Your task to perform on an android device: Show me recent news Image 0: 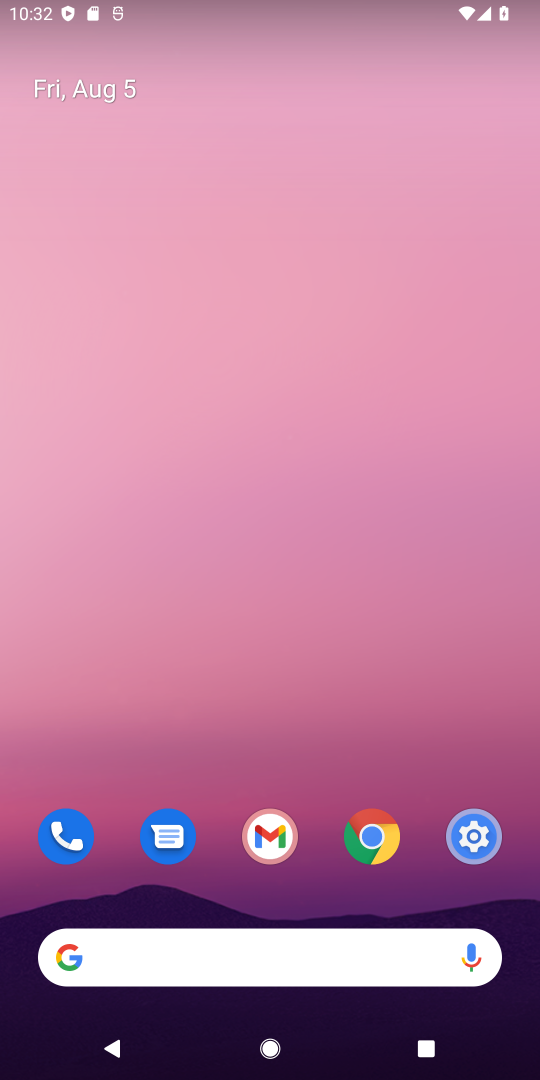
Step 0: drag from (309, 497) to (271, 12)
Your task to perform on an android device: Show me recent news Image 1: 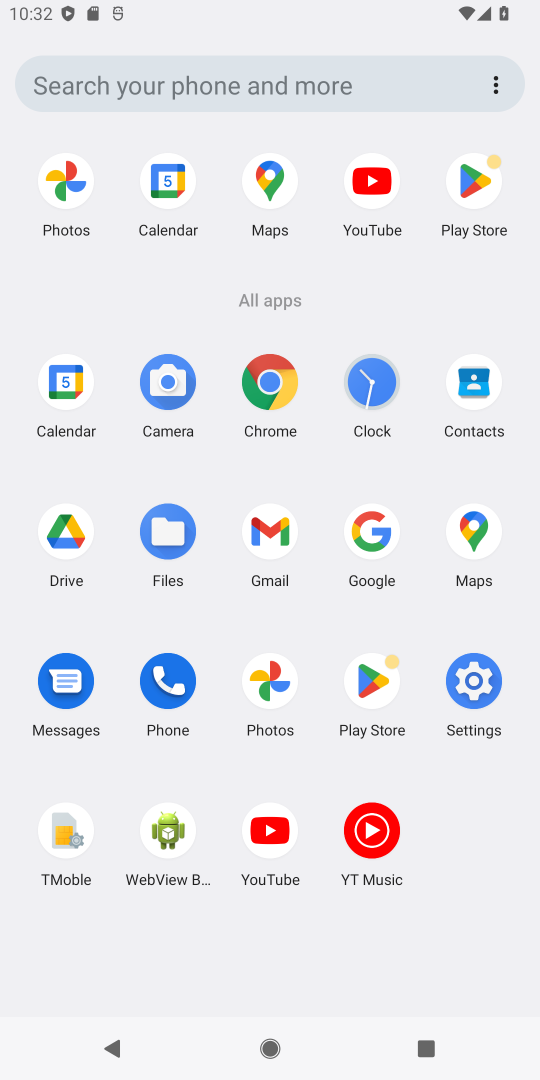
Step 1: click (271, 383)
Your task to perform on an android device: Show me recent news Image 2: 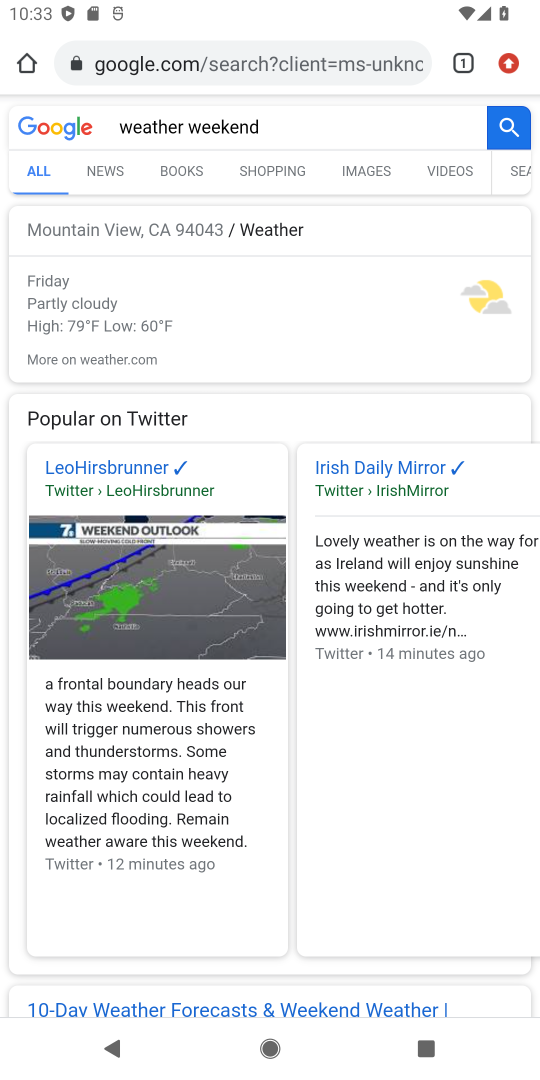
Step 2: click (341, 60)
Your task to perform on an android device: Show me recent news Image 3: 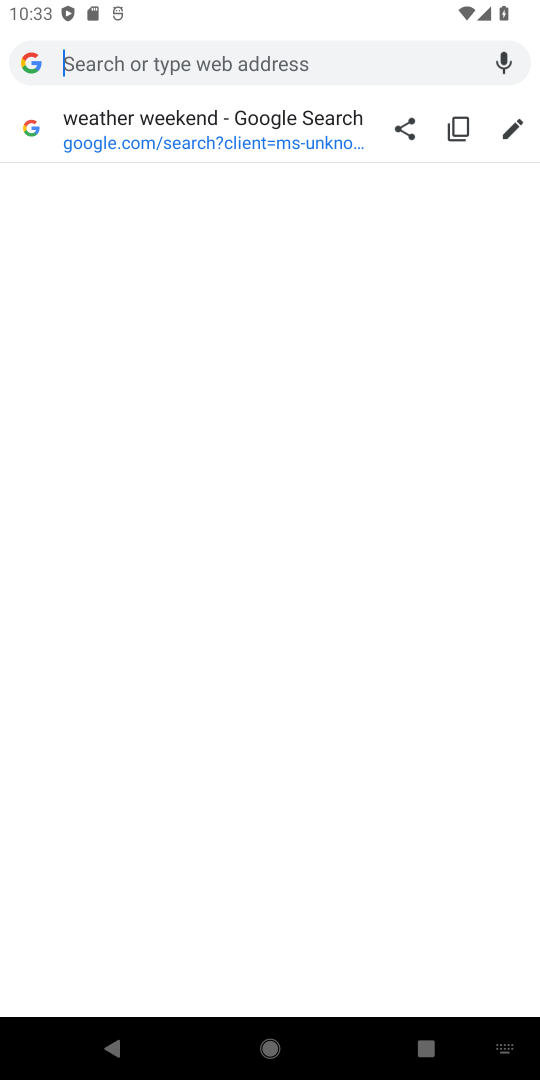
Step 3: type "news"
Your task to perform on an android device: Show me recent news Image 4: 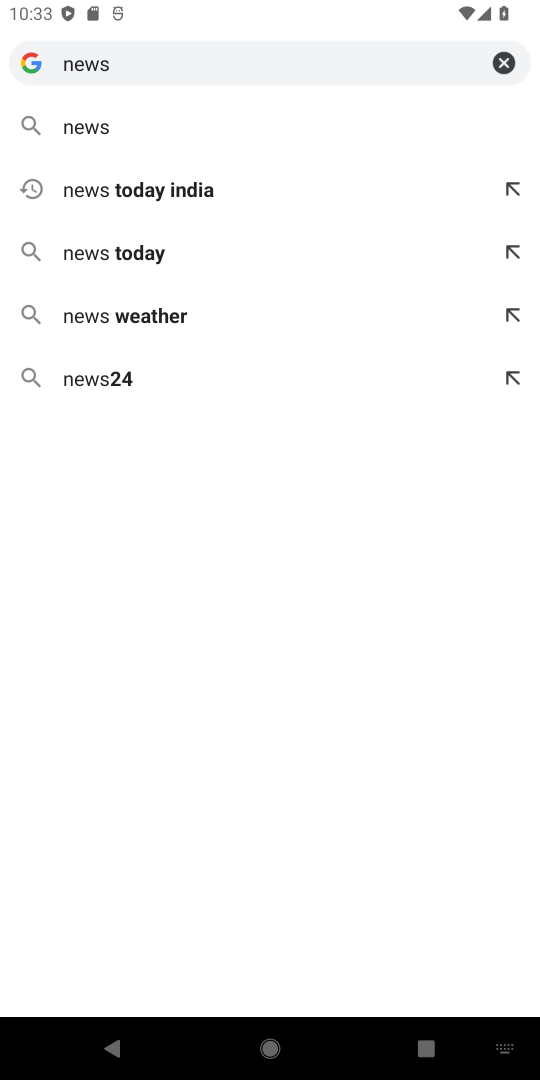
Step 4: click (73, 132)
Your task to perform on an android device: Show me recent news Image 5: 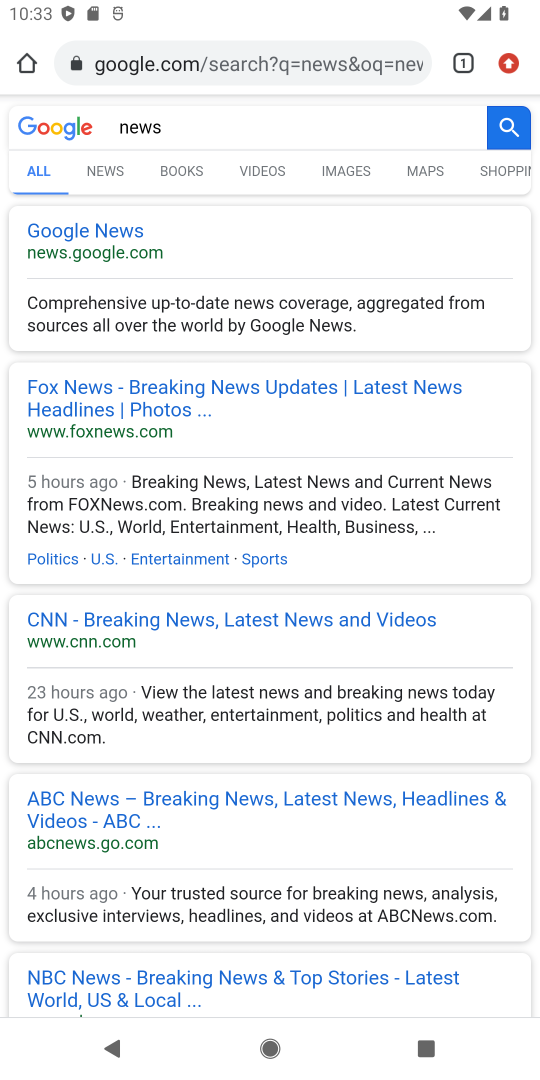
Step 5: click (77, 234)
Your task to perform on an android device: Show me recent news Image 6: 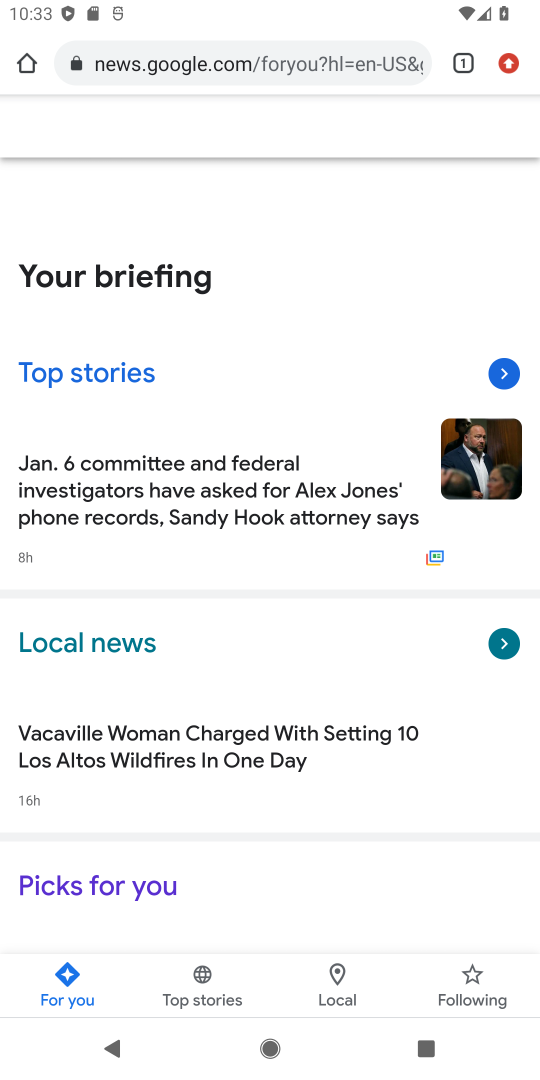
Step 6: task complete